Your task to perform on an android device: turn on location history Image 0: 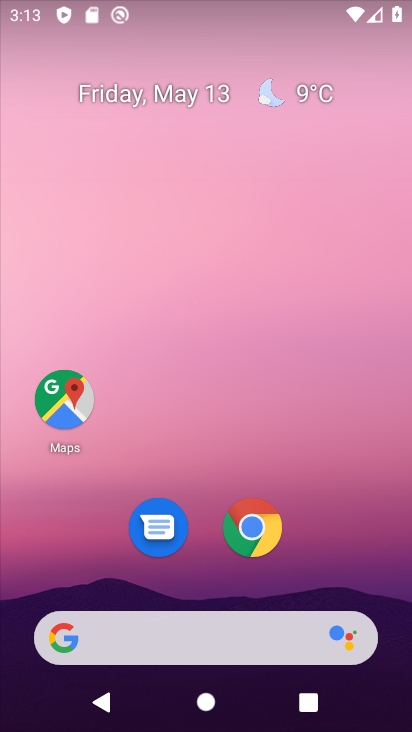
Step 0: drag from (309, 532) to (312, 278)
Your task to perform on an android device: turn on location history Image 1: 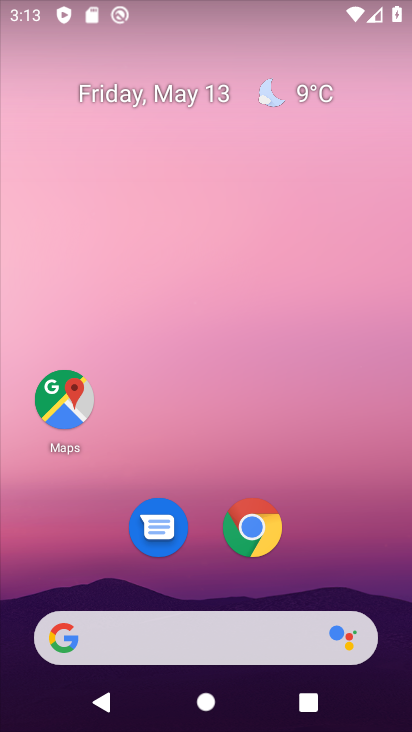
Step 1: drag from (203, 581) to (198, 220)
Your task to perform on an android device: turn on location history Image 2: 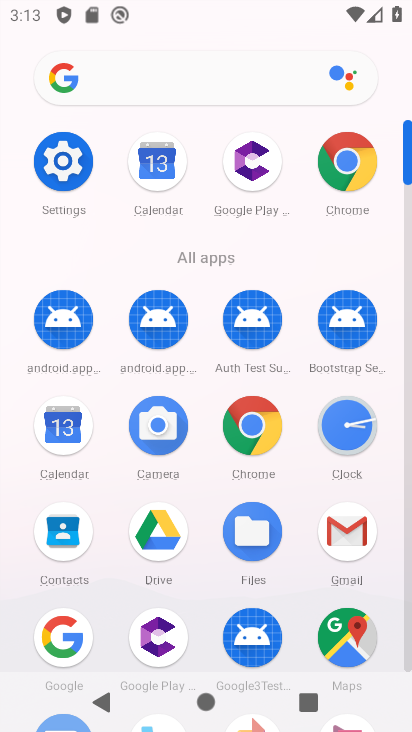
Step 2: click (69, 158)
Your task to perform on an android device: turn on location history Image 3: 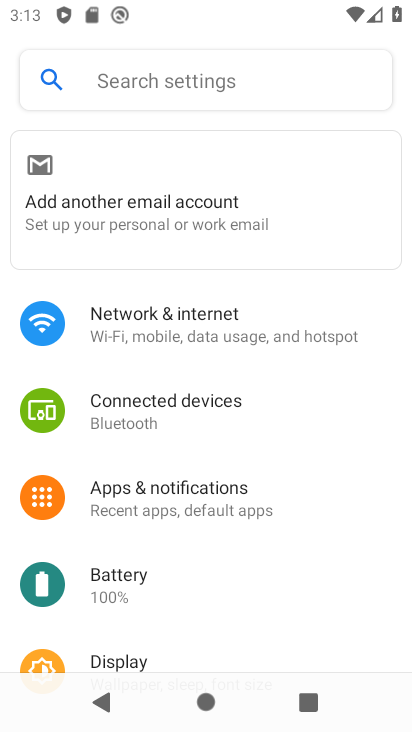
Step 3: drag from (192, 593) to (208, 258)
Your task to perform on an android device: turn on location history Image 4: 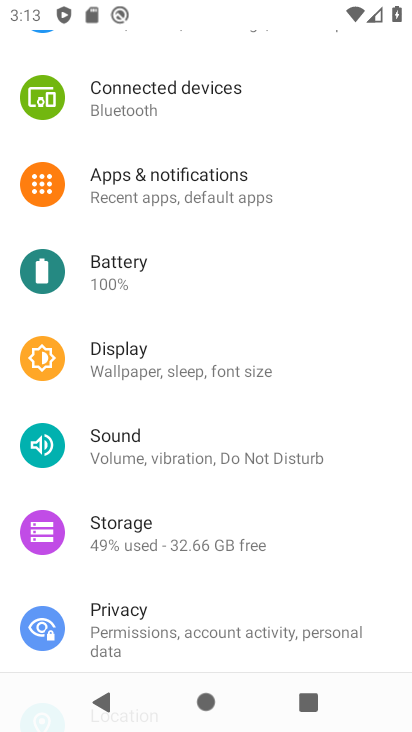
Step 4: drag from (146, 594) to (256, 283)
Your task to perform on an android device: turn on location history Image 5: 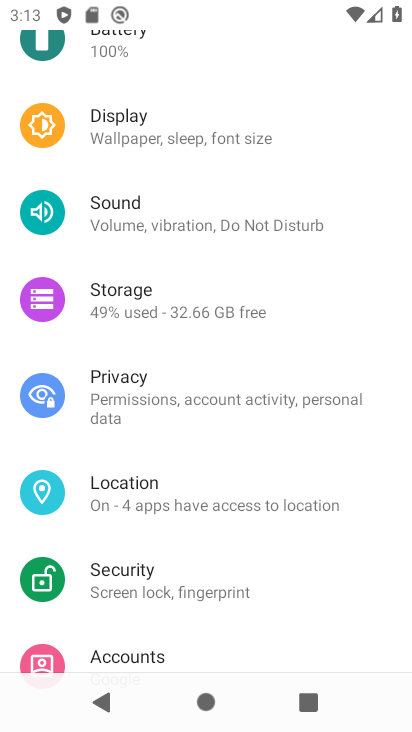
Step 5: click (184, 492)
Your task to perform on an android device: turn on location history Image 6: 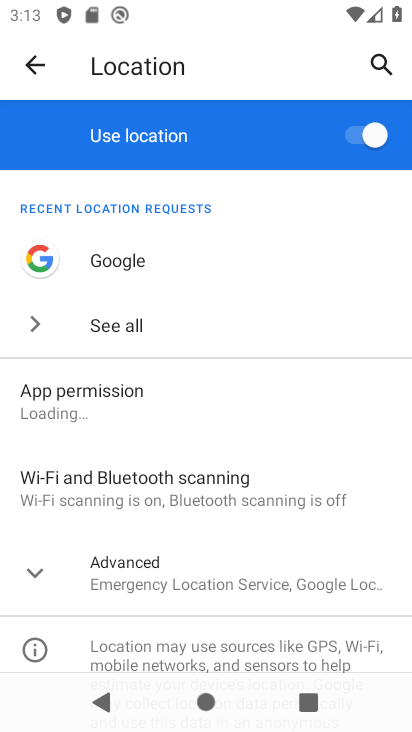
Step 6: click (141, 581)
Your task to perform on an android device: turn on location history Image 7: 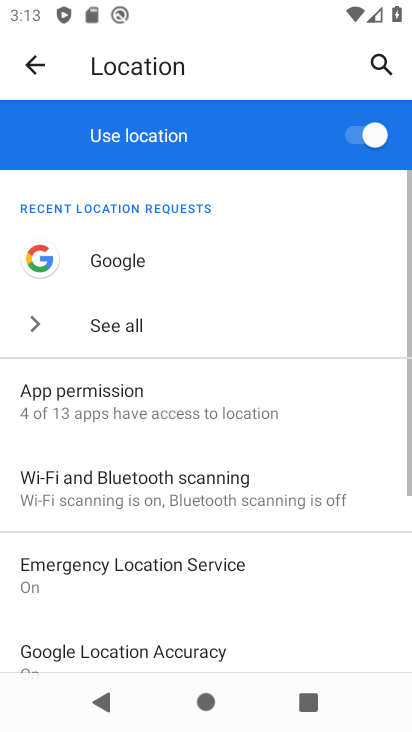
Step 7: drag from (137, 635) to (221, 274)
Your task to perform on an android device: turn on location history Image 8: 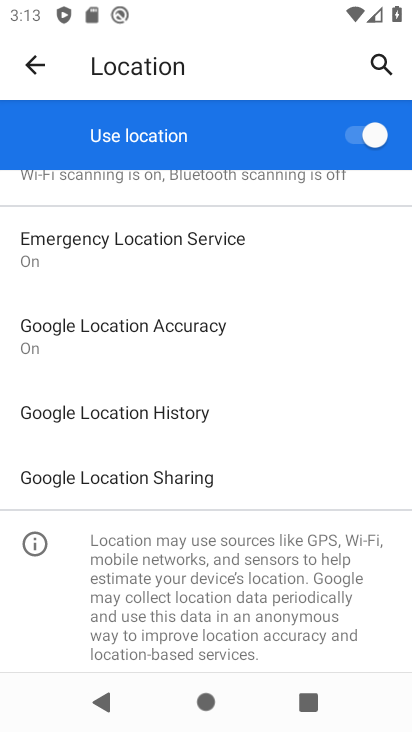
Step 8: click (145, 402)
Your task to perform on an android device: turn on location history Image 9: 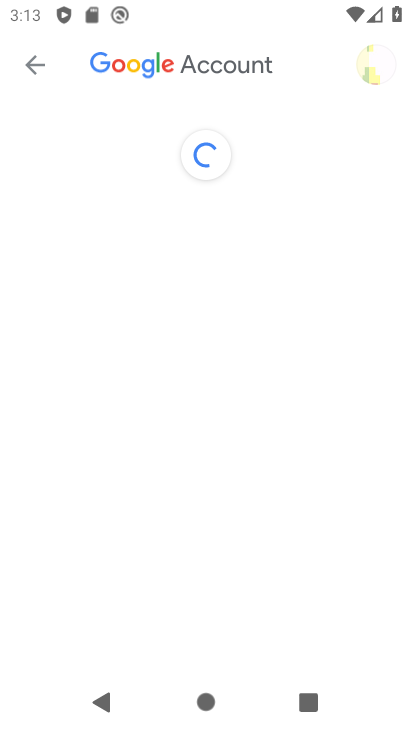
Step 9: drag from (252, 549) to (285, 68)
Your task to perform on an android device: turn on location history Image 10: 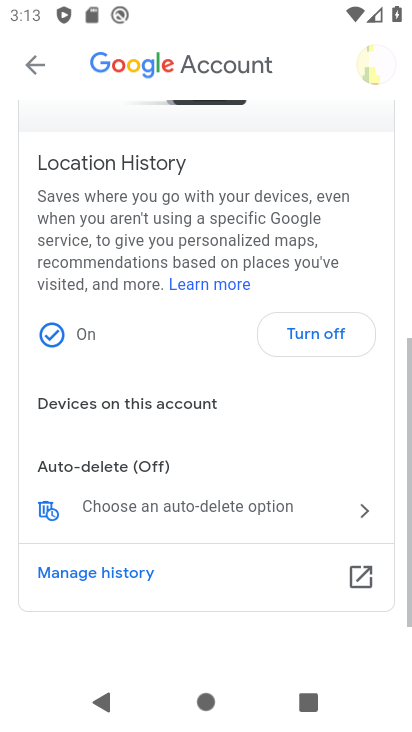
Step 10: drag from (259, 575) to (296, 337)
Your task to perform on an android device: turn on location history Image 11: 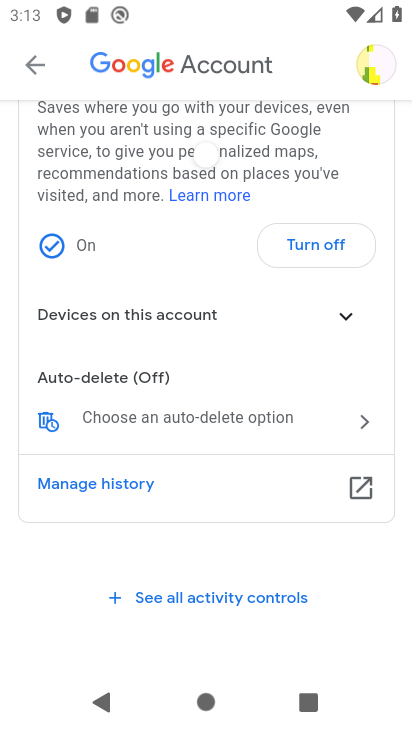
Step 11: click (328, 233)
Your task to perform on an android device: turn on location history Image 12: 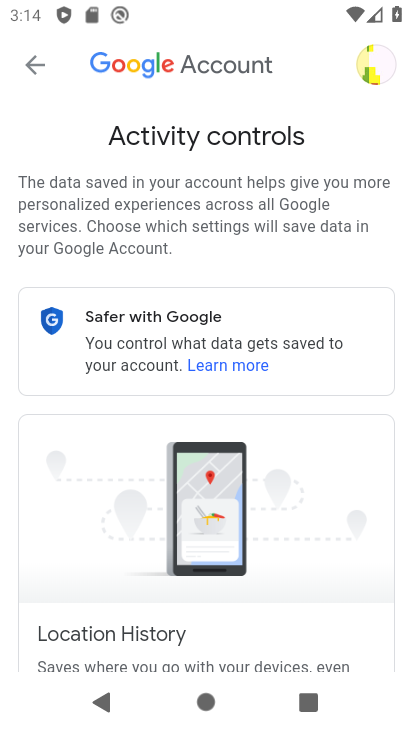
Step 12: drag from (286, 497) to (334, 63)
Your task to perform on an android device: turn on location history Image 13: 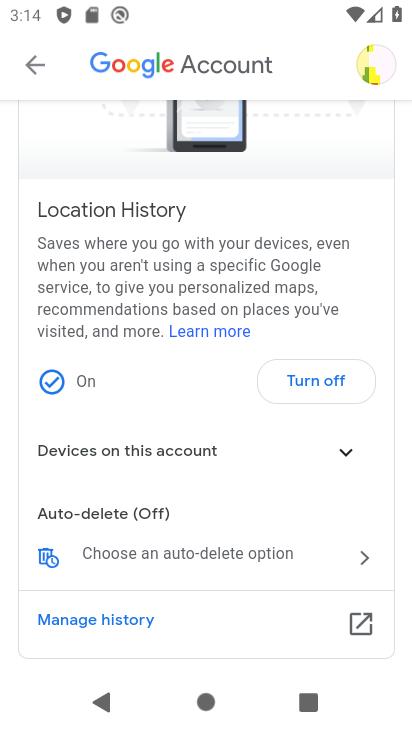
Step 13: click (312, 378)
Your task to perform on an android device: turn on location history Image 14: 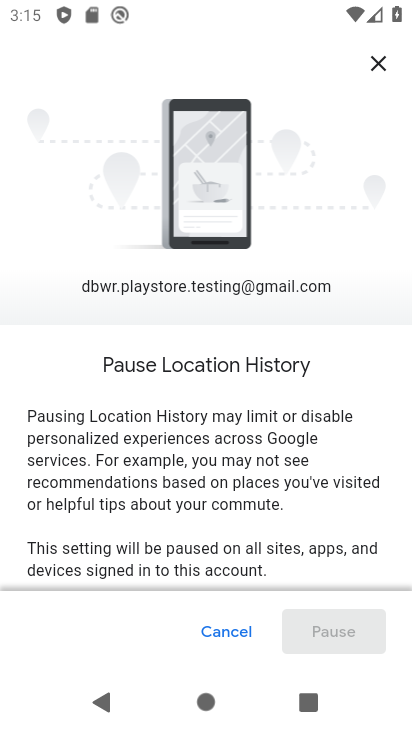
Step 14: click (254, 633)
Your task to perform on an android device: turn on location history Image 15: 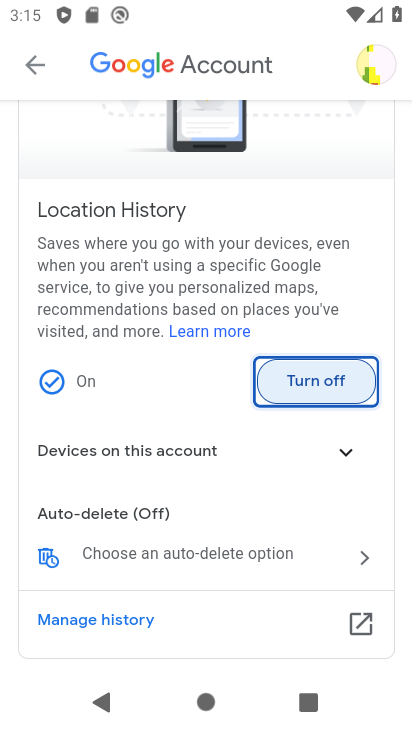
Step 15: task complete